Your task to perform on an android device: Add "beats solo 3" to the cart on bestbuy Image 0: 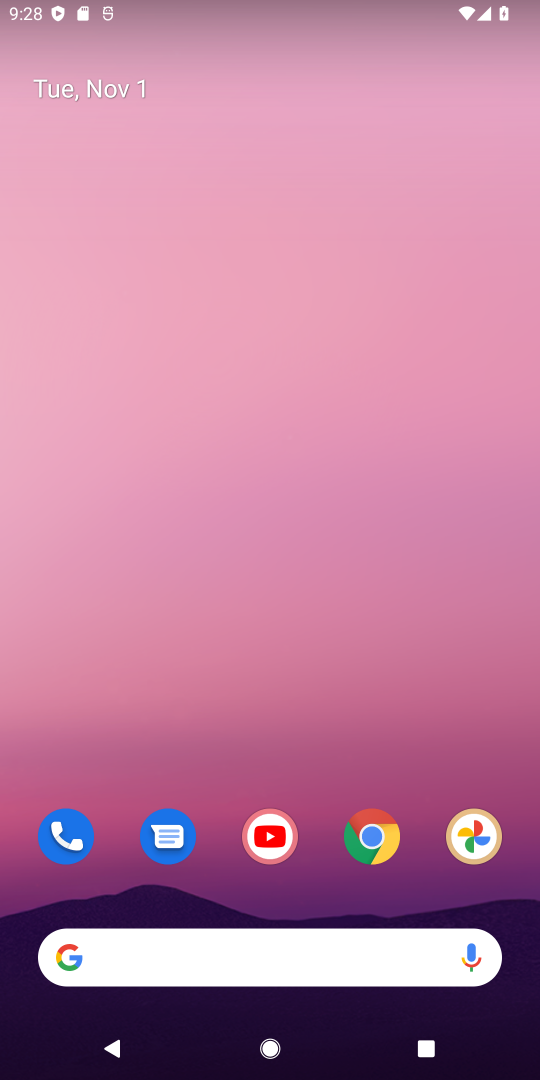
Step 0: click (374, 841)
Your task to perform on an android device: Add "beats solo 3" to the cart on bestbuy Image 1: 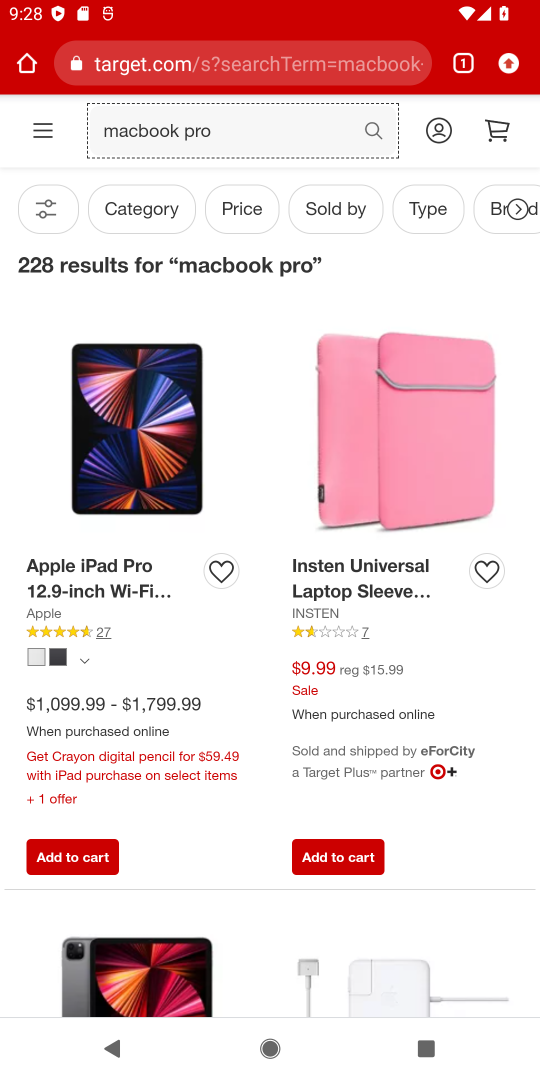
Step 1: click (188, 75)
Your task to perform on an android device: Add "beats solo 3" to the cart on bestbuy Image 2: 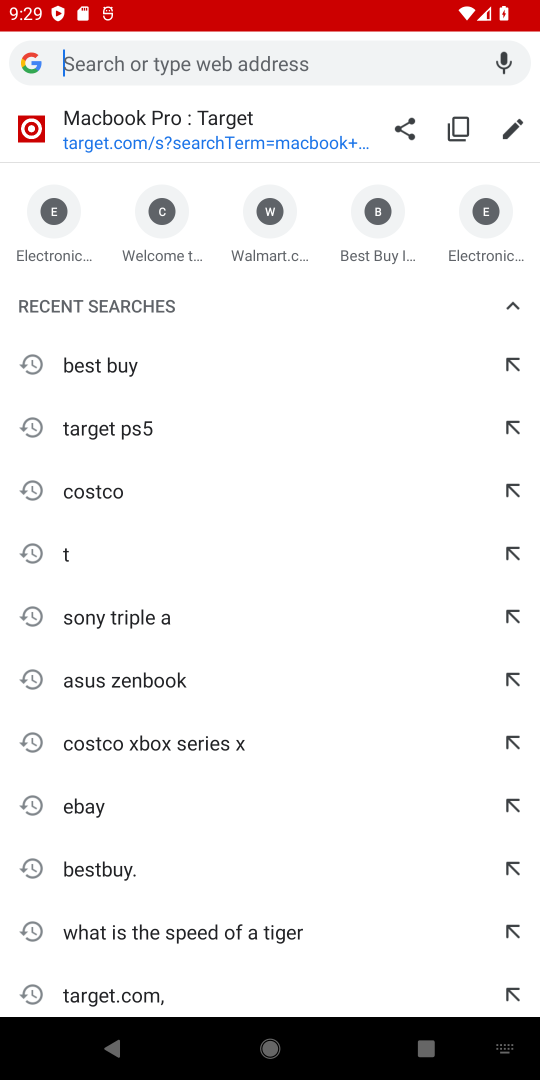
Step 2: type "bestbuy"
Your task to perform on an android device: Add "beats solo 3" to the cart on bestbuy Image 3: 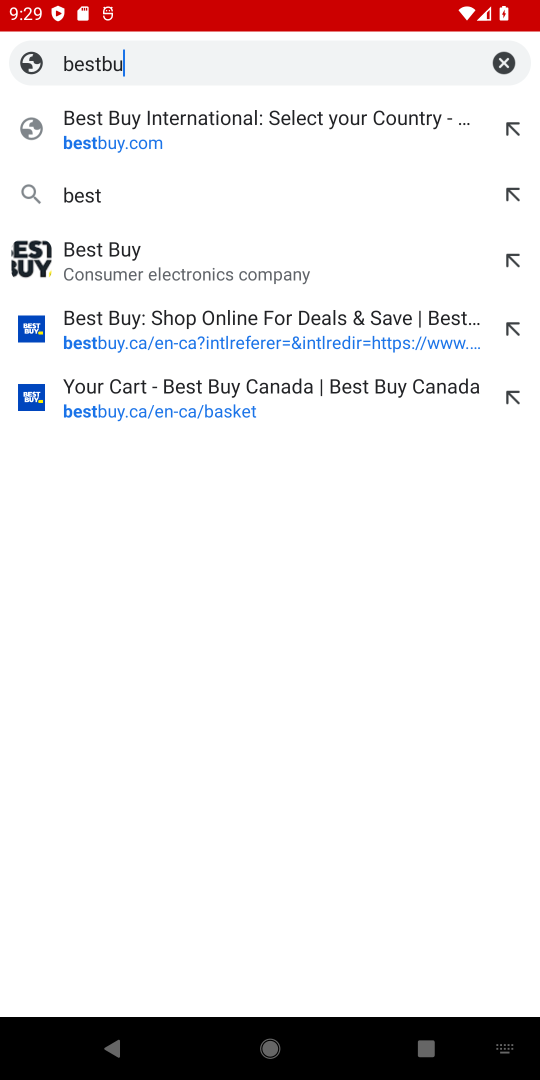
Step 3: type ""
Your task to perform on an android device: Add "beats solo 3" to the cart on bestbuy Image 4: 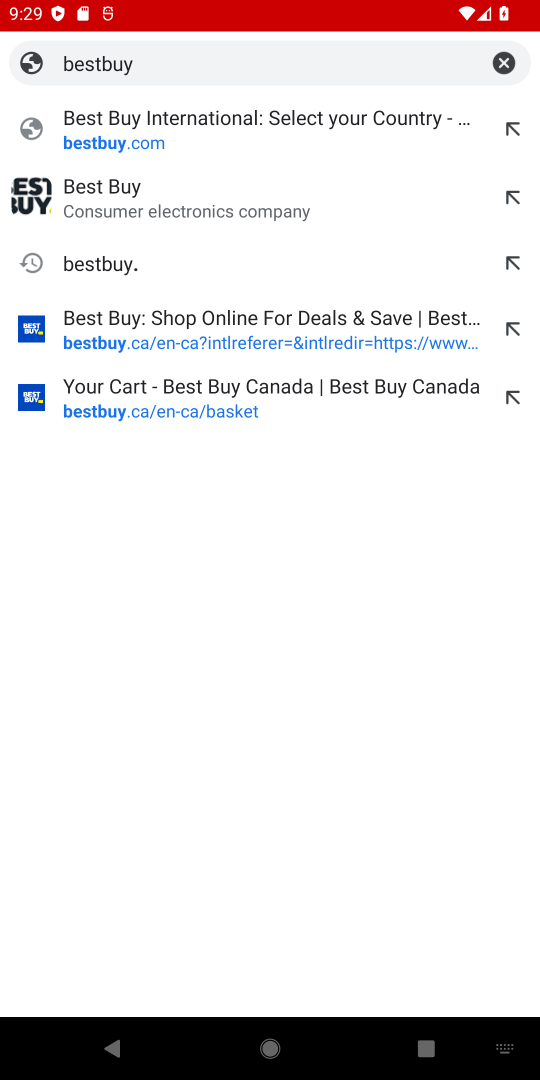
Step 4: click (310, 144)
Your task to perform on an android device: Add "beats solo 3" to the cart on bestbuy Image 5: 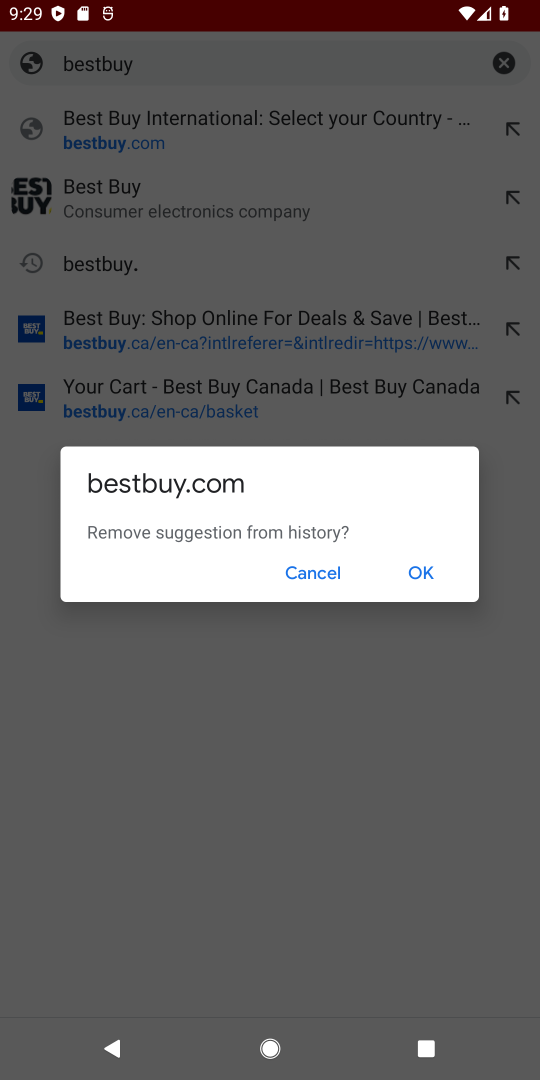
Step 5: click (427, 562)
Your task to perform on an android device: Add "beats solo 3" to the cart on bestbuy Image 6: 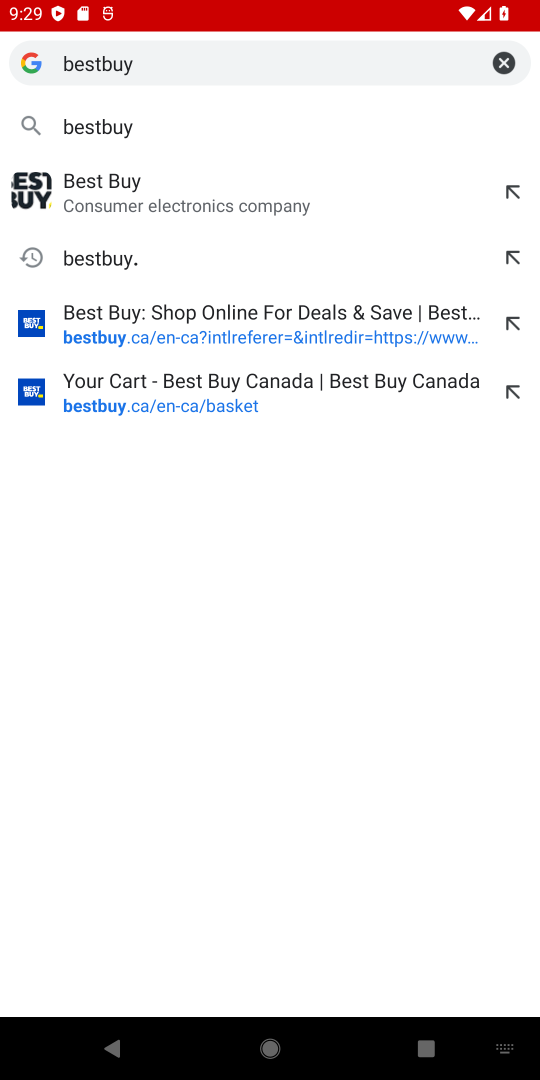
Step 6: click (216, 201)
Your task to perform on an android device: Add "beats solo 3" to the cart on bestbuy Image 7: 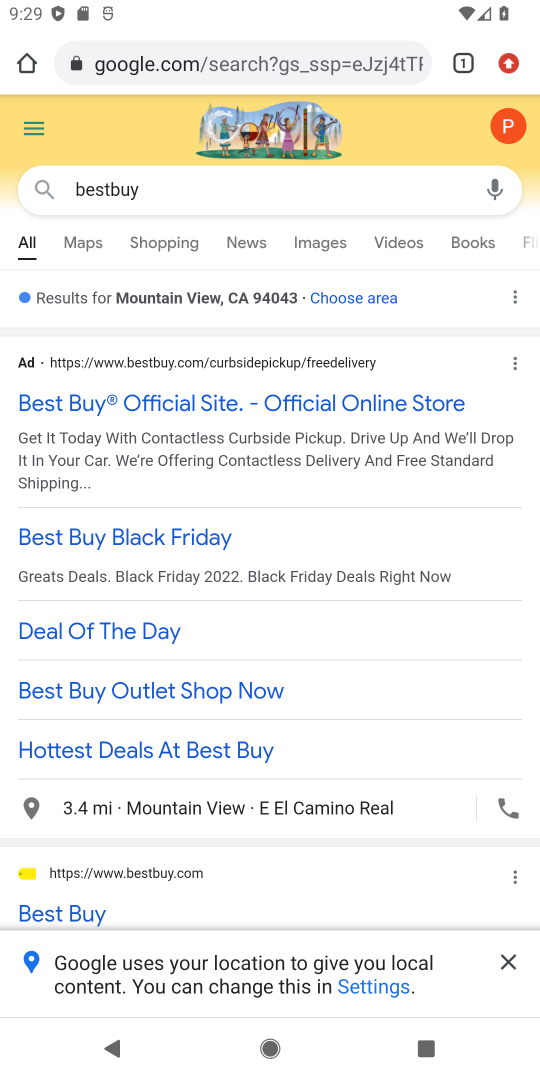
Step 7: click (65, 909)
Your task to perform on an android device: Add "beats solo 3" to the cart on bestbuy Image 8: 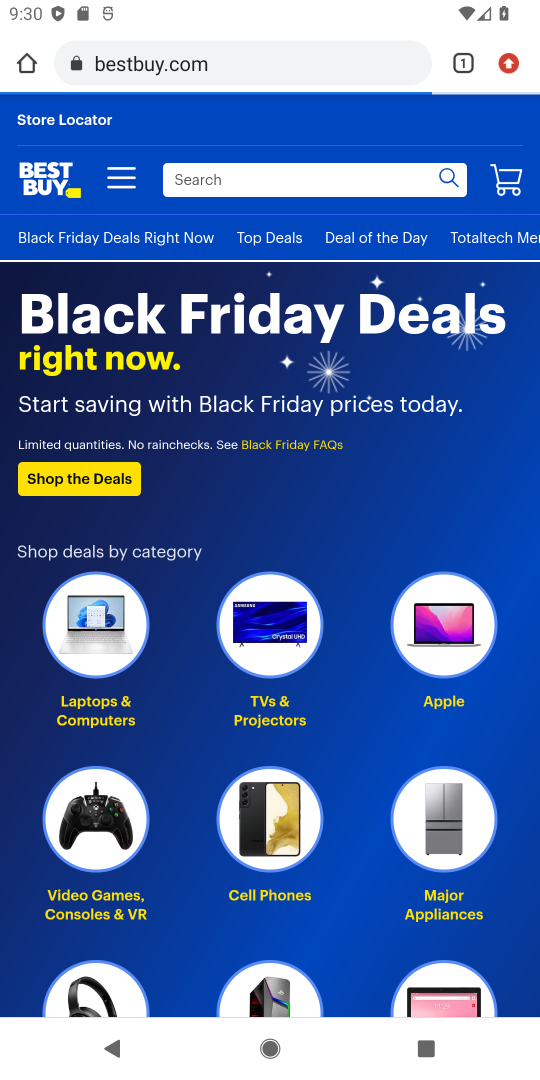
Step 8: click (65, 909)
Your task to perform on an android device: Add "beats solo 3" to the cart on bestbuy Image 9: 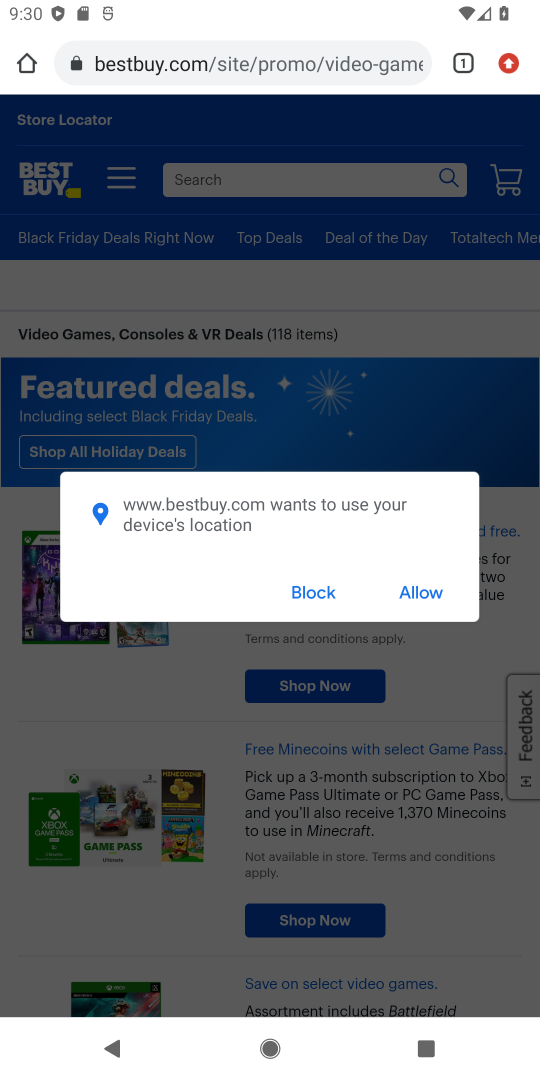
Step 9: click (323, 602)
Your task to perform on an android device: Add "beats solo 3" to the cart on bestbuy Image 10: 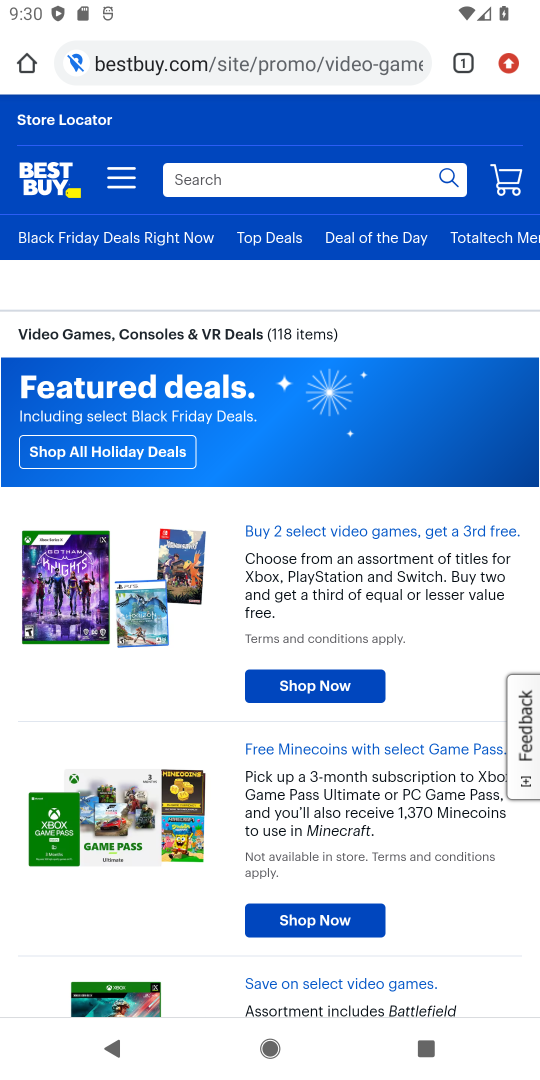
Step 10: click (256, 179)
Your task to perform on an android device: Add "beats solo 3" to the cart on bestbuy Image 11: 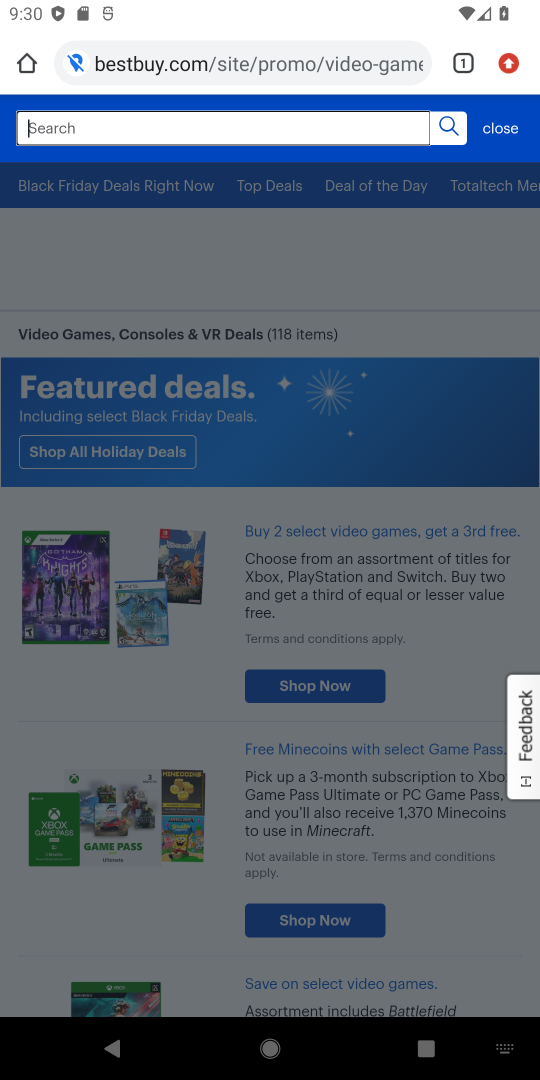
Step 11: click (256, 179)
Your task to perform on an android device: Add "beats solo 3" to the cart on bestbuy Image 12: 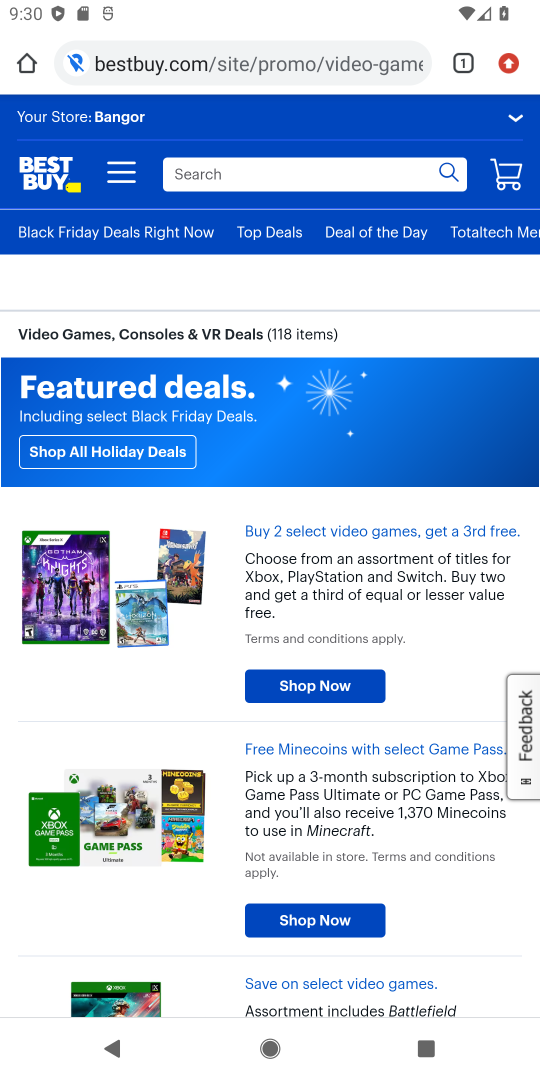
Step 12: click (237, 162)
Your task to perform on an android device: Add "beats solo 3" to the cart on bestbuy Image 13: 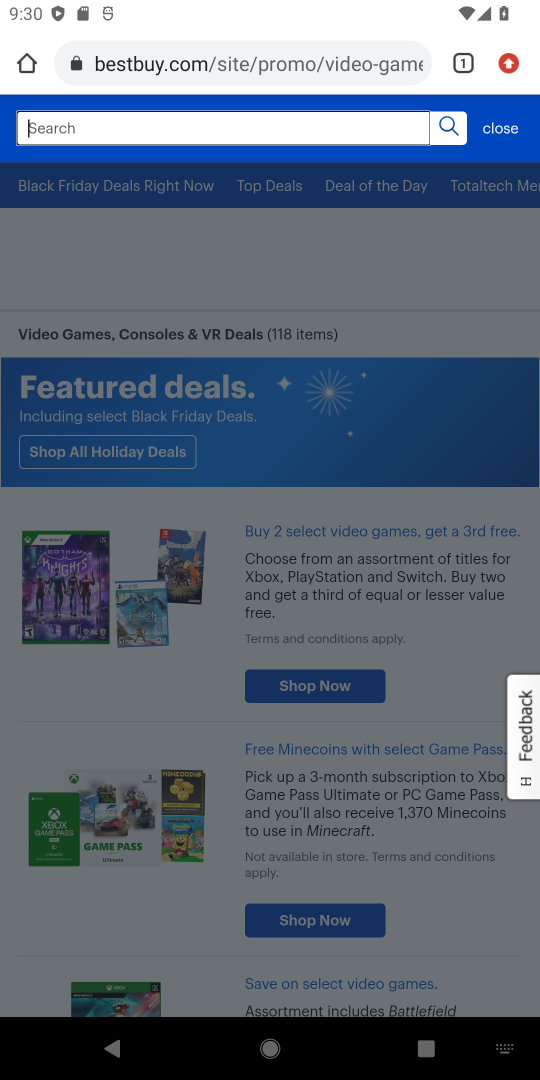
Step 13: type "beats solo 3"
Your task to perform on an android device: Add "beats solo 3" to the cart on bestbuy Image 14: 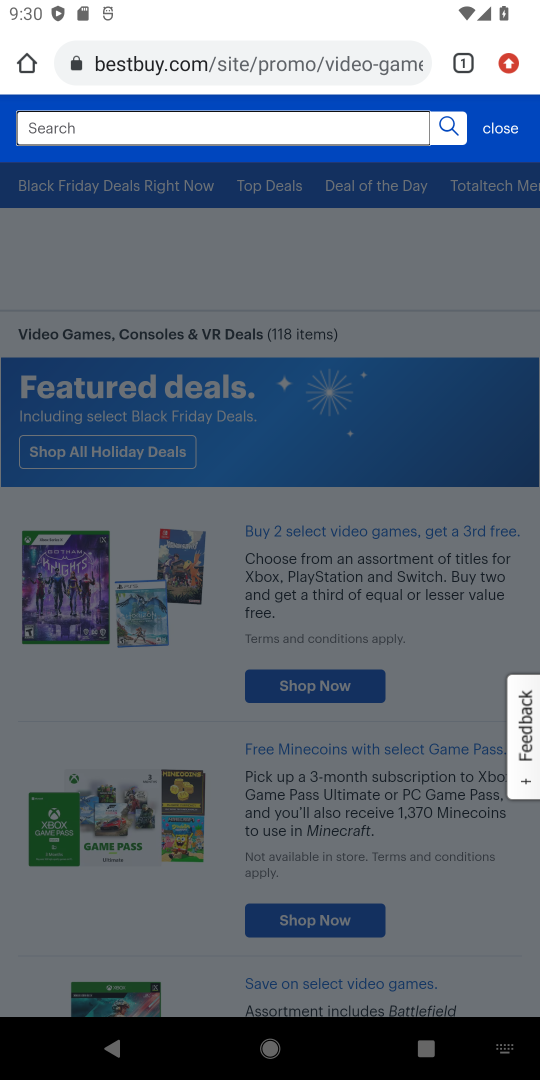
Step 14: type ""
Your task to perform on an android device: Add "beats solo 3" to the cart on bestbuy Image 15: 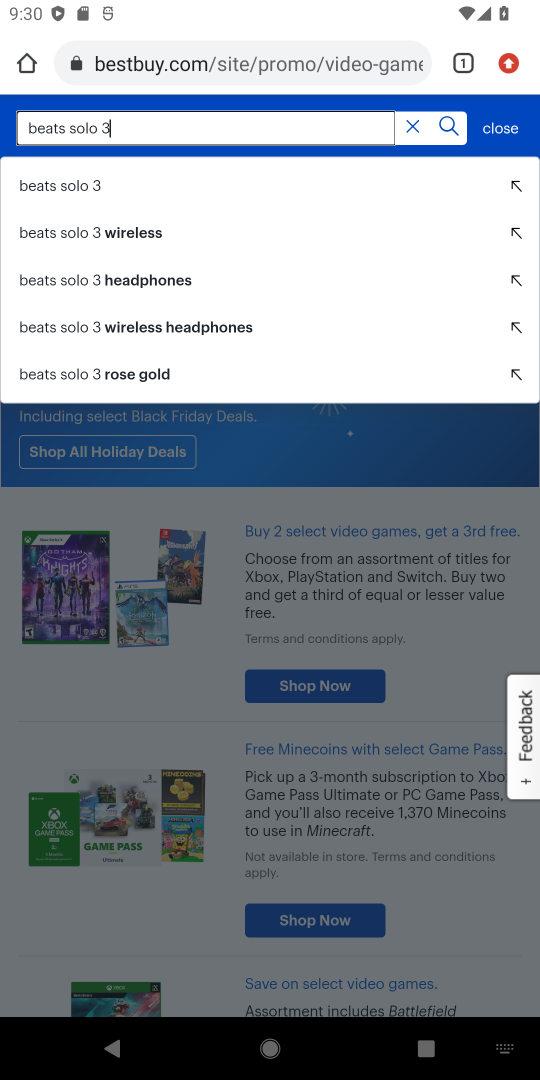
Step 15: click (117, 184)
Your task to perform on an android device: Add "beats solo 3" to the cart on bestbuy Image 16: 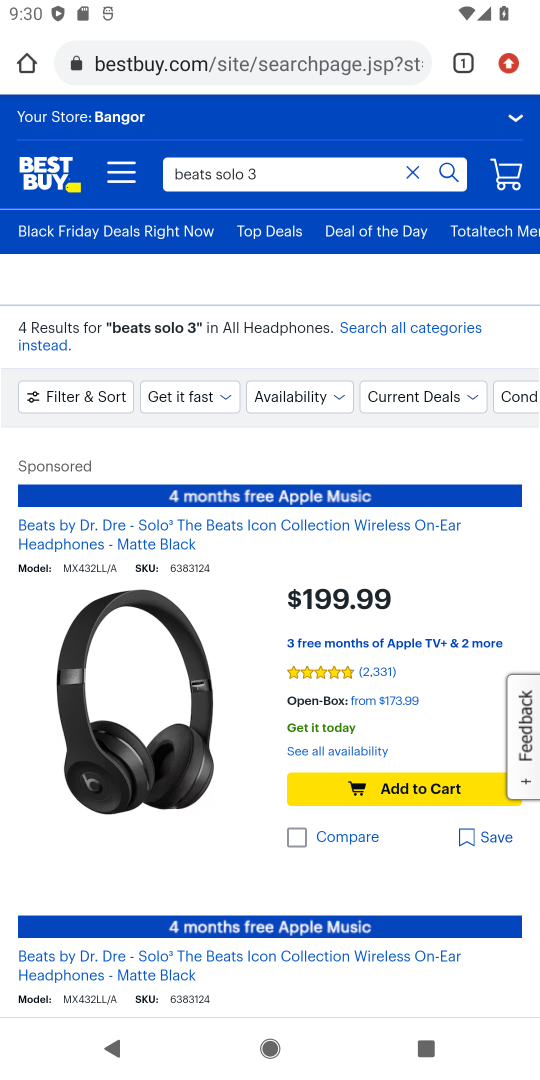
Step 16: drag from (155, 568) to (171, 304)
Your task to perform on an android device: Add "beats solo 3" to the cart on bestbuy Image 17: 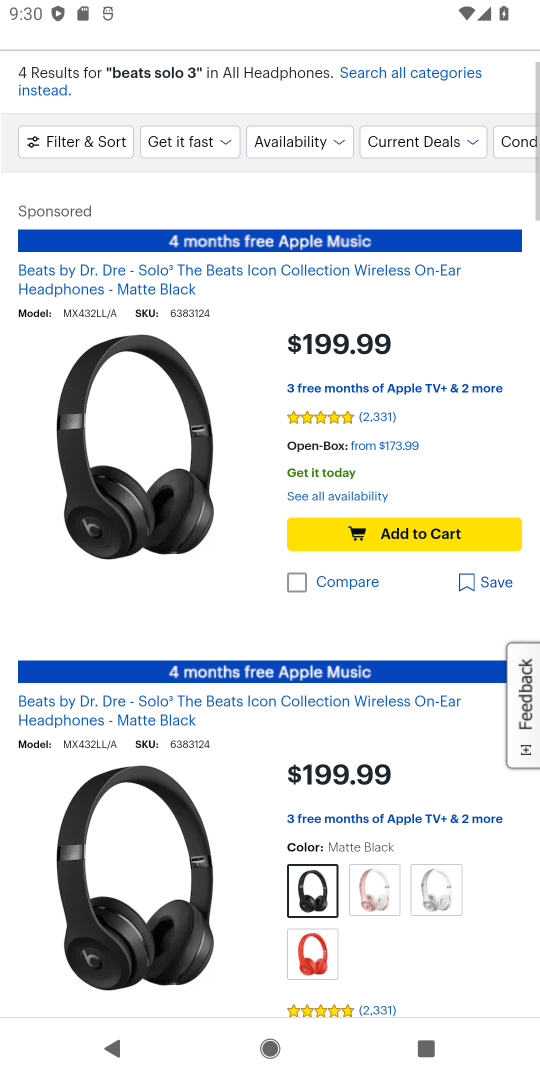
Step 17: drag from (329, 847) to (343, 371)
Your task to perform on an android device: Add "beats solo 3" to the cart on bestbuy Image 18: 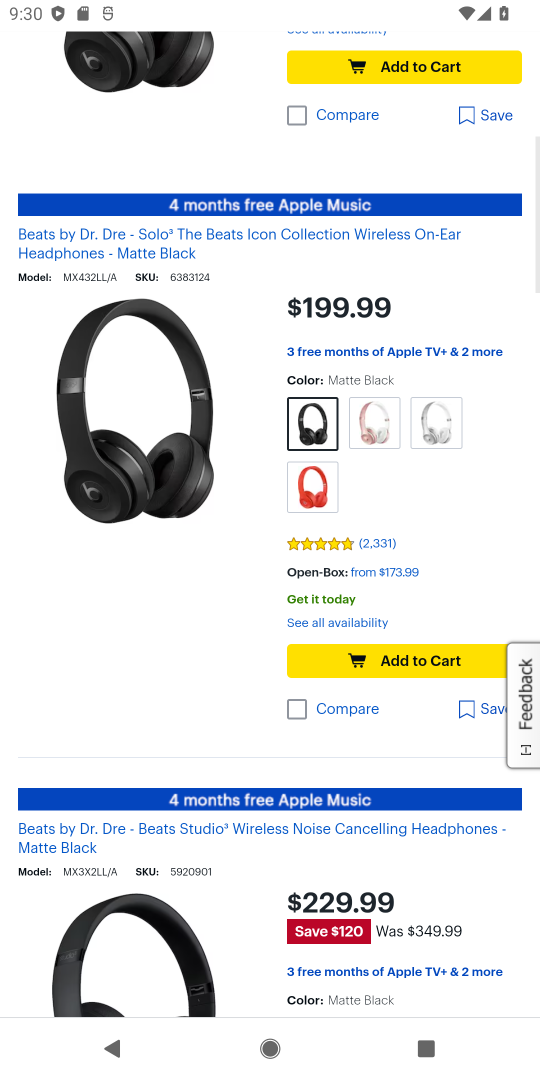
Step 18: drag from (355, 712) to (357, 332)
Your task to perform on an android device: Add "beats solo 3" to the cart on bestbuy Image 19: 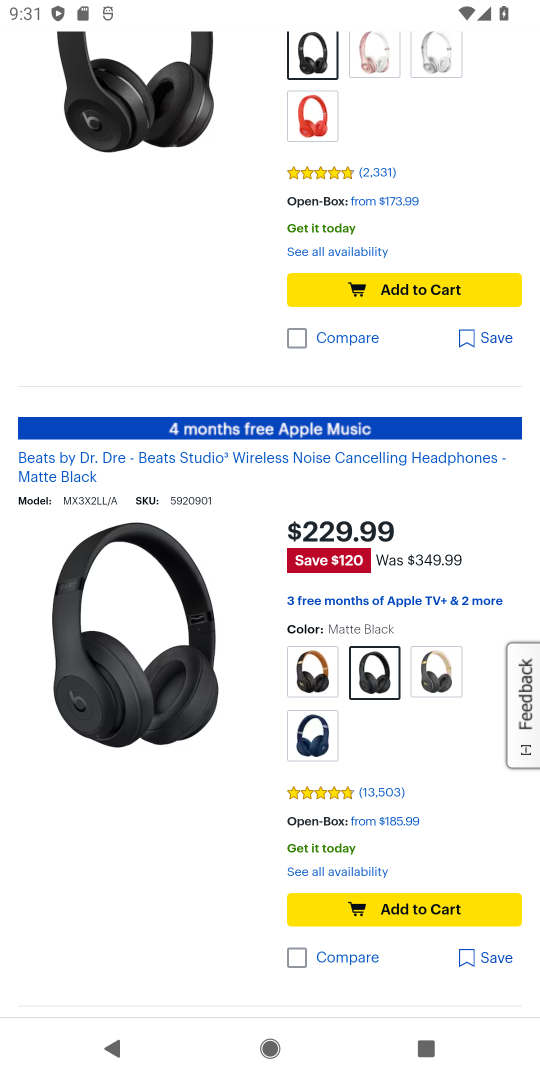
Step 19: drag from (328, 625) to (322, 831)
Your task to perform on an android device: Add "beats solo 3" to the cart on bestbuy Image 20: 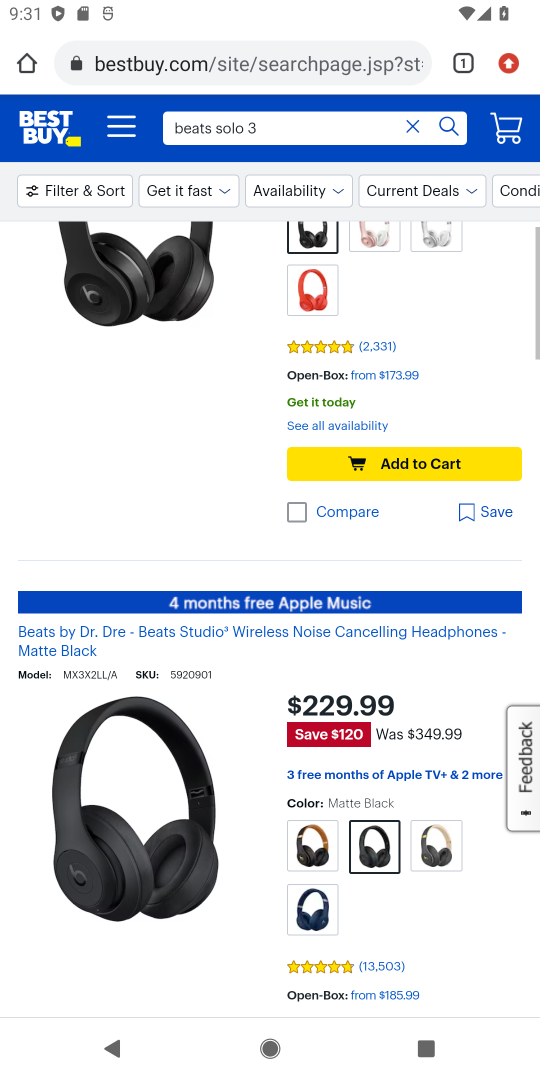
Step 20: drag from (260, 609) to (259, 905)
Your task to perform on an android device: Add "beats solo 3" to the cart on bestbuy Image 21: 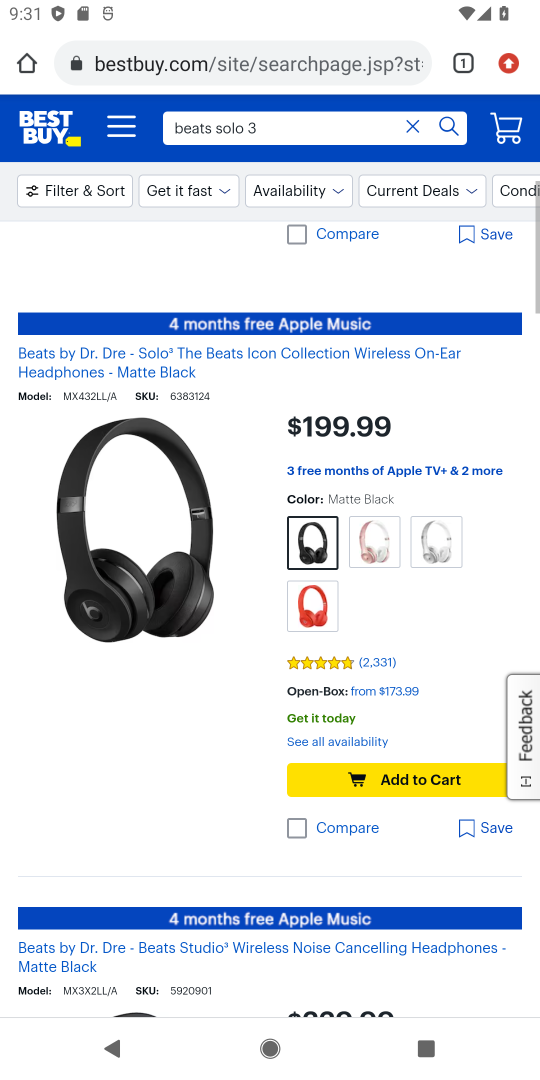
Step 21: drag from (240, 667) to (226, 867)
Your task to perform on an android device: Add "beats solo 3" to the cart on bestbuy Image 22: 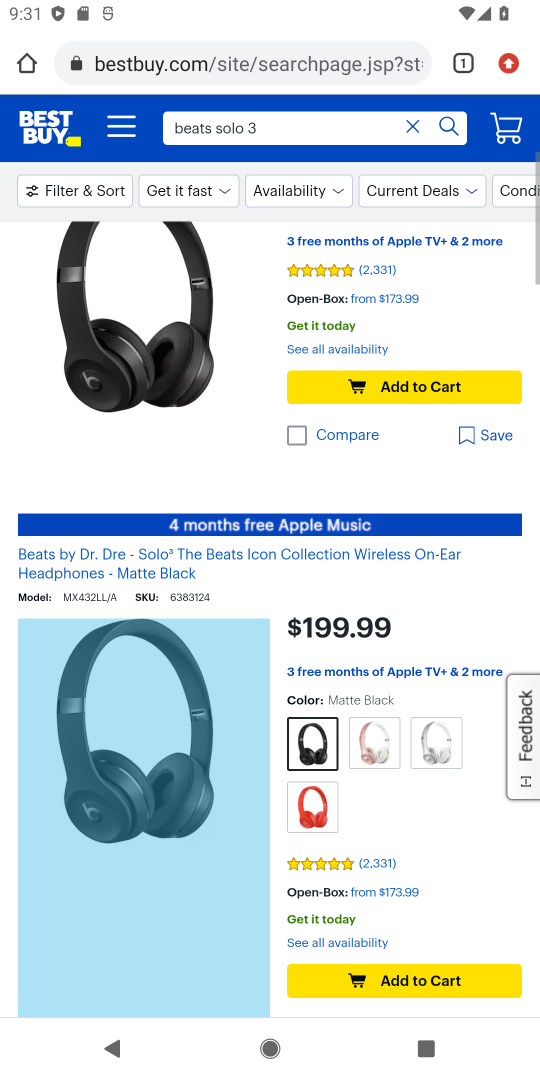
Step 22: drag from (264, 446) to (268, 717)
Your task to perform on an android device: Add "beats solo 3" to the cart on bestbuy Image 23: 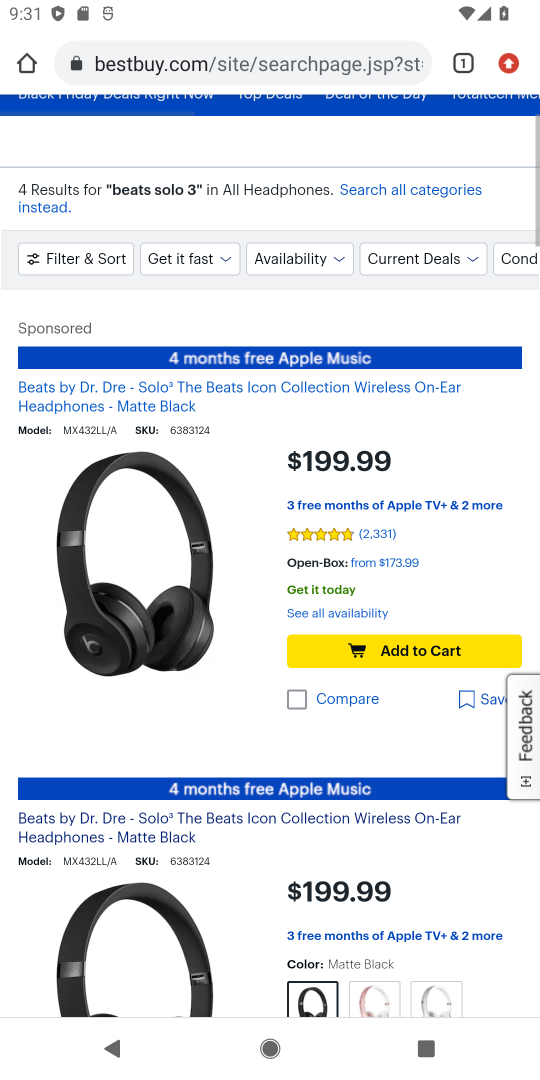
Step 23: drag from (310, 446) to (277, 740)
Your task to perform on an android device: Add "beats solo 3" to the cart on bestbuy Image 24: 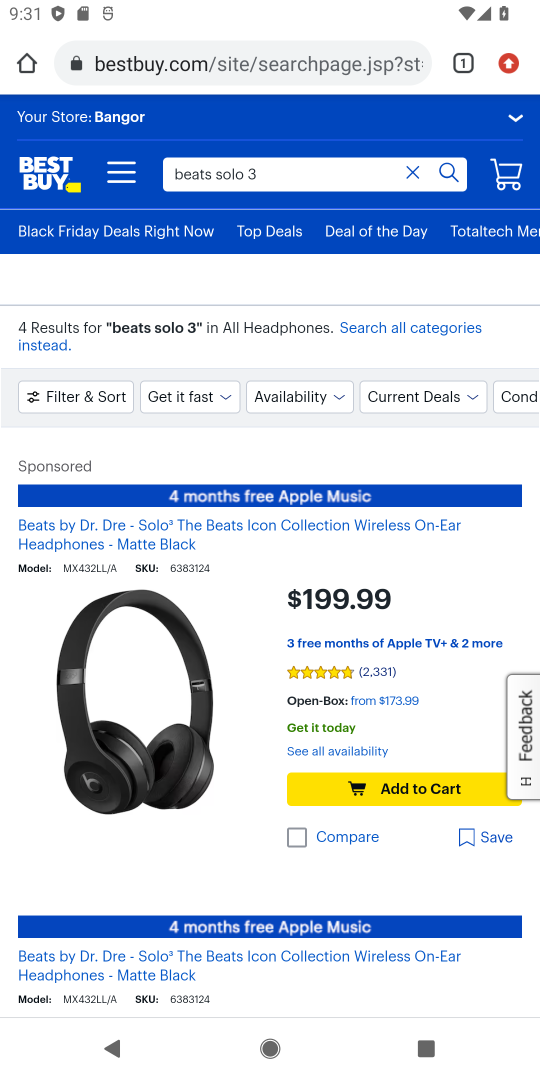
Step 24: click (311, 641)
Your task to perform on an android device: Add "beats solo 3" to the cart on bestbuy Image 25: 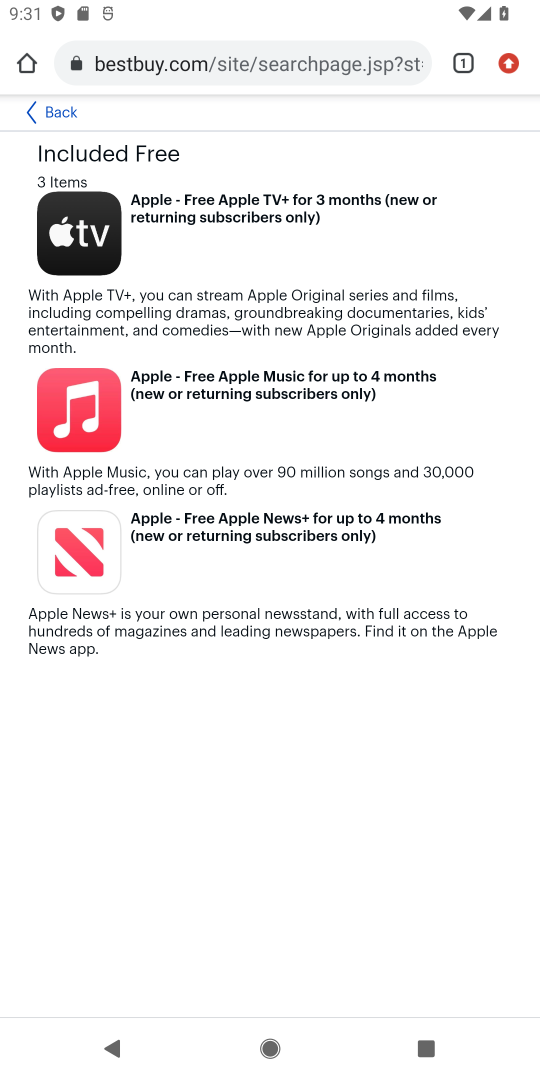
Step 25: press back button
Your task to perform on an android device: Add "beats solo 3" to the cart on bestbuy Image 26: 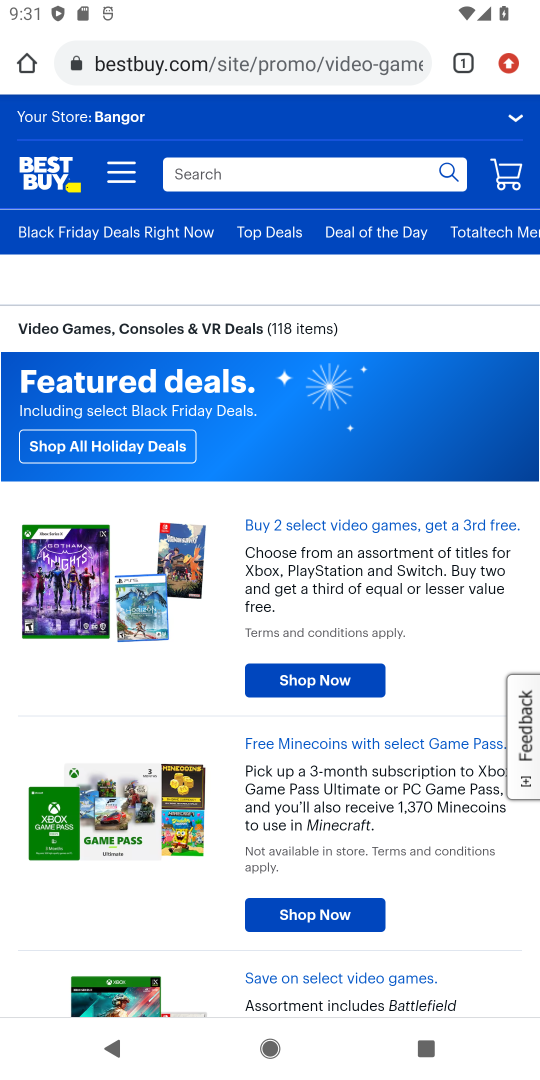
Step 26: drag from (322, 475) to (346, 315)
Your task to perform on an android device: Add "beats solo 3" to the cart on bestbuy Image 27: 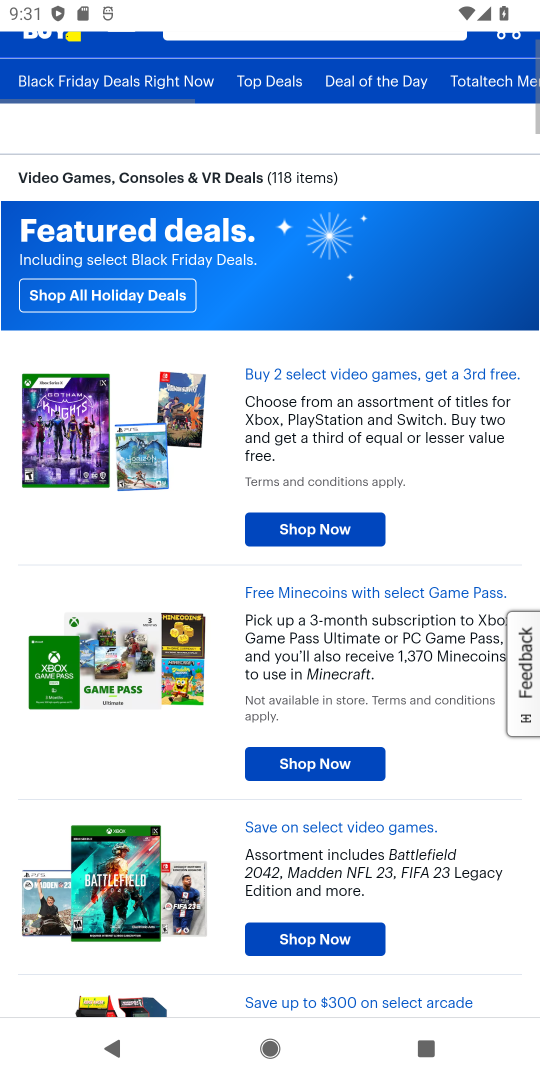
Step 27: drag from (300, 661) to (316, 460)
Your task to perform on an android device: Add "beats solo 3" to the cart on bestbuy Image 28: 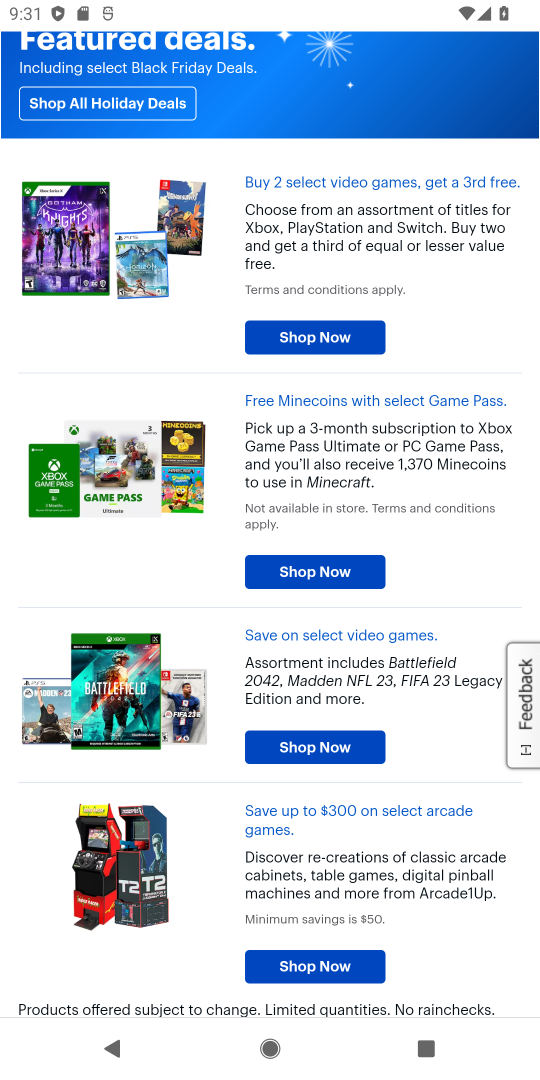
Step 28: drag from (355, 135) to (267, 728)
Your task to perform on an android device: Add "beats solo 3" to the cart on bestbuy Image 29: 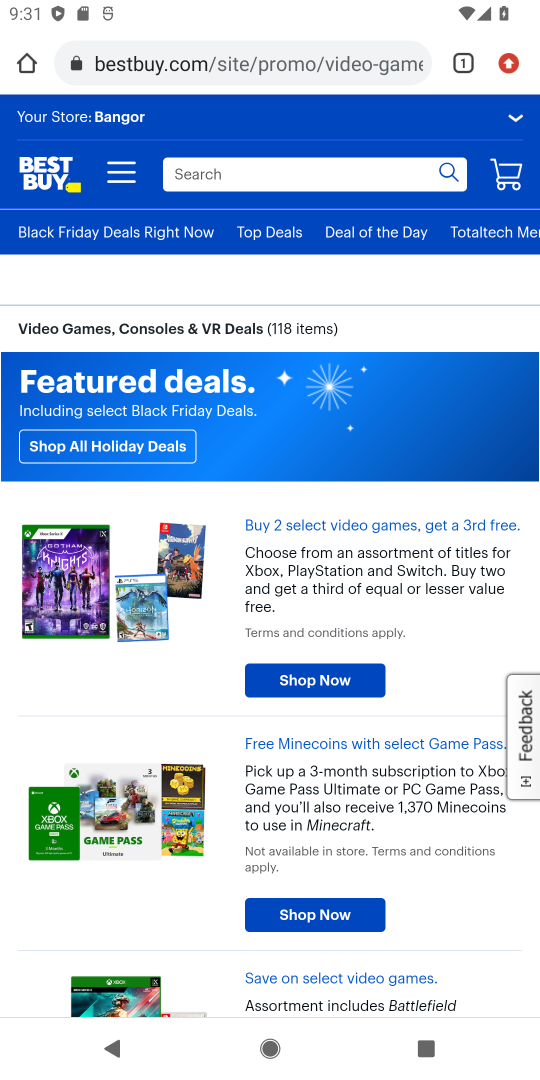
Step 29: click (318, 174)
Your task to perform on an android device: Add "beats solo 3" to the cart on bestbuy Image 30: 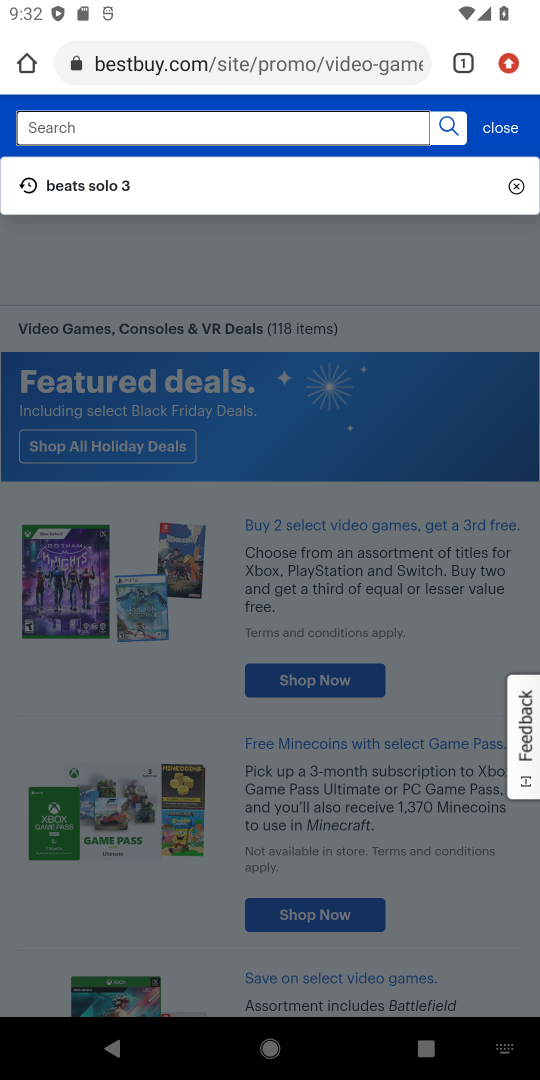
Step 30: click (153, 181)
Your task to perform on an android device: Add "beats solo 3" to the cart on bestbuy Image 31: 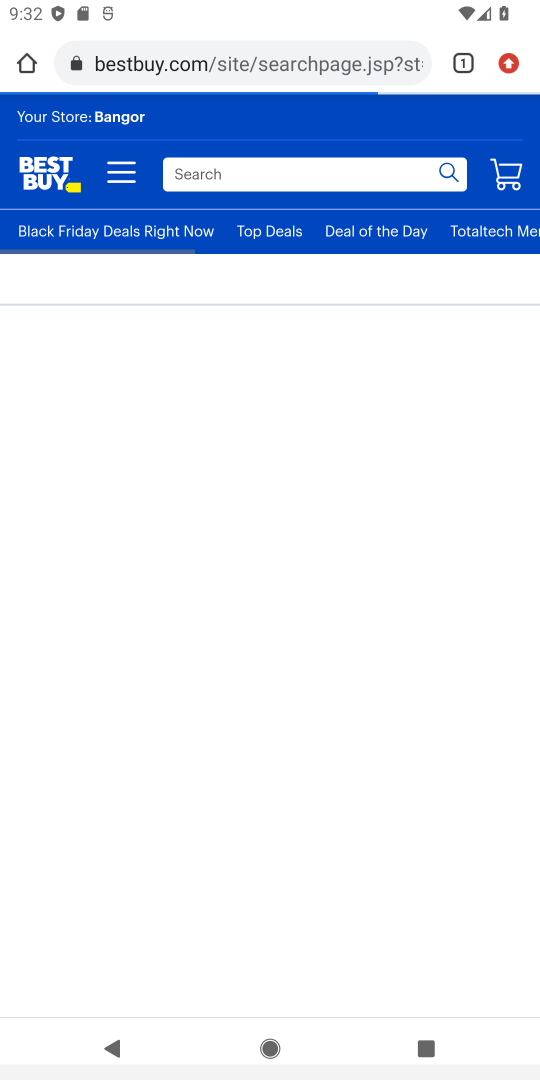
Step 31: click (453, 128)
Your task to perform on an android device: Add "beats solo 3" to the cart on bestbuy Image 32: 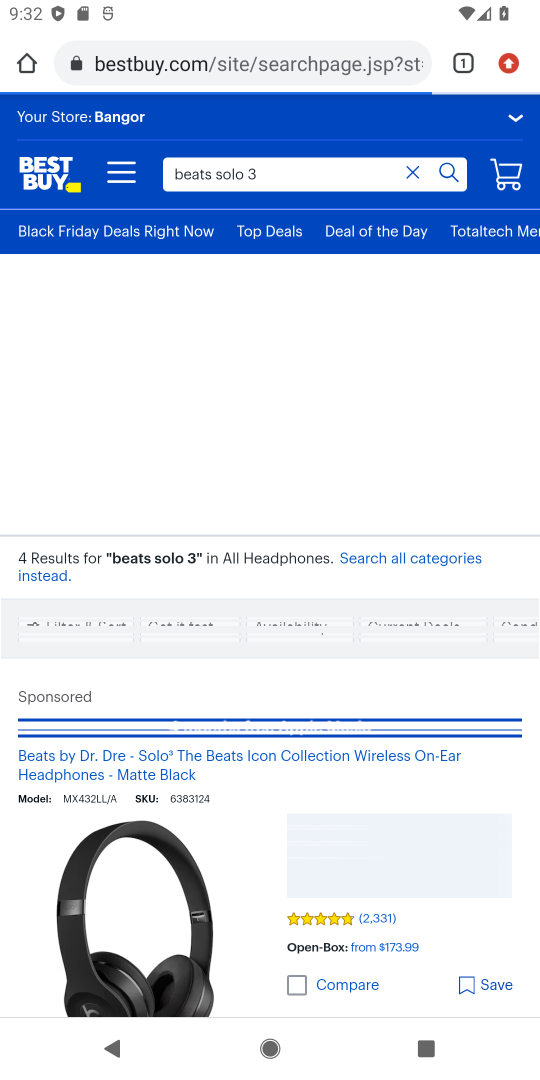
Step 32: click (251, 752)
Your task to perform on an android device: Add "beats solo 3" to the cart on bestbuy Image 33: 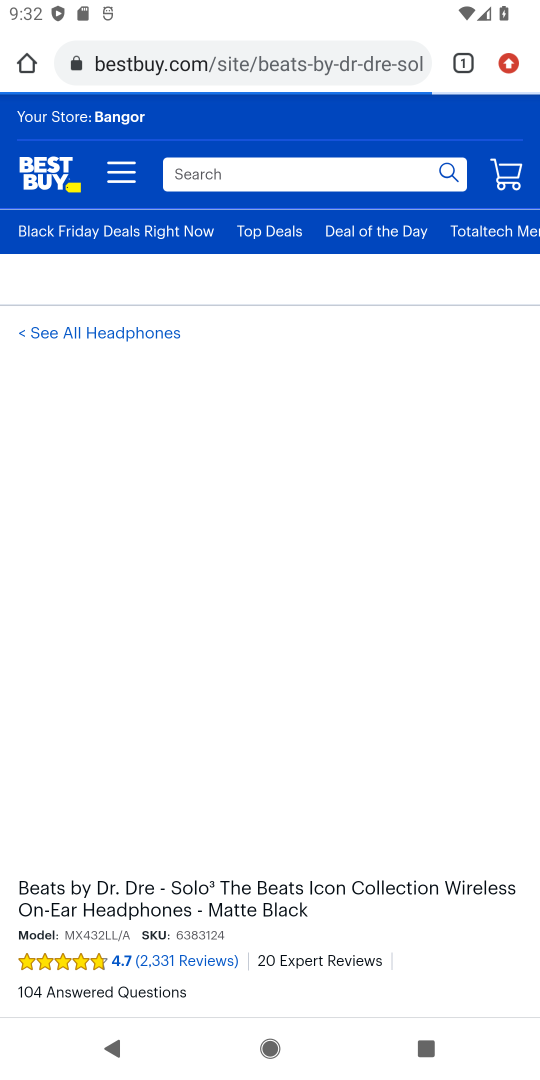
Step 33: drag from (436, 885) to (432, 473)
Your task to perform on an android device: Add "beats solo 3" to the cart on bestbuy Image 34: 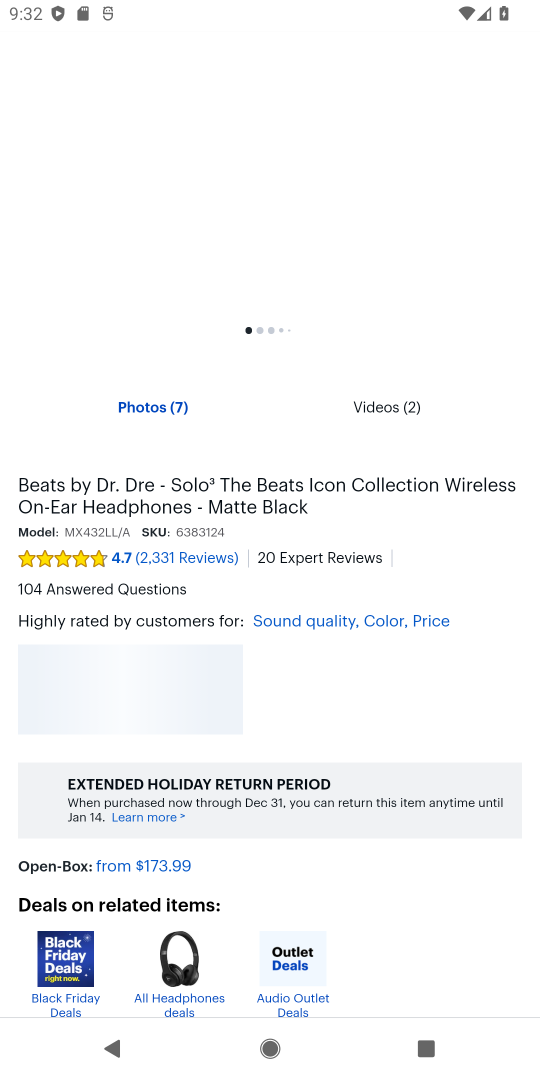
Step 34: drag from (416, 799) to (419, 463)
Your task to perform on an android device: Add "beats solo 3" to the cart on bestbuy Image 35: 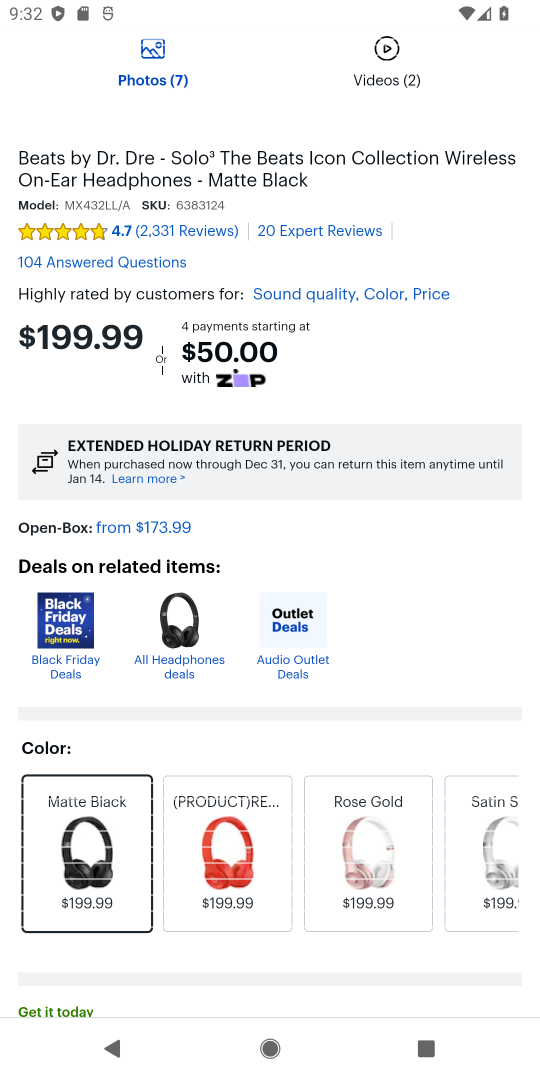
Step 35: drag from (358, 857) to (374, 435)
Your task to perform on an android device: Add "beats solo 3" to the cart on bestbuy Image 36: 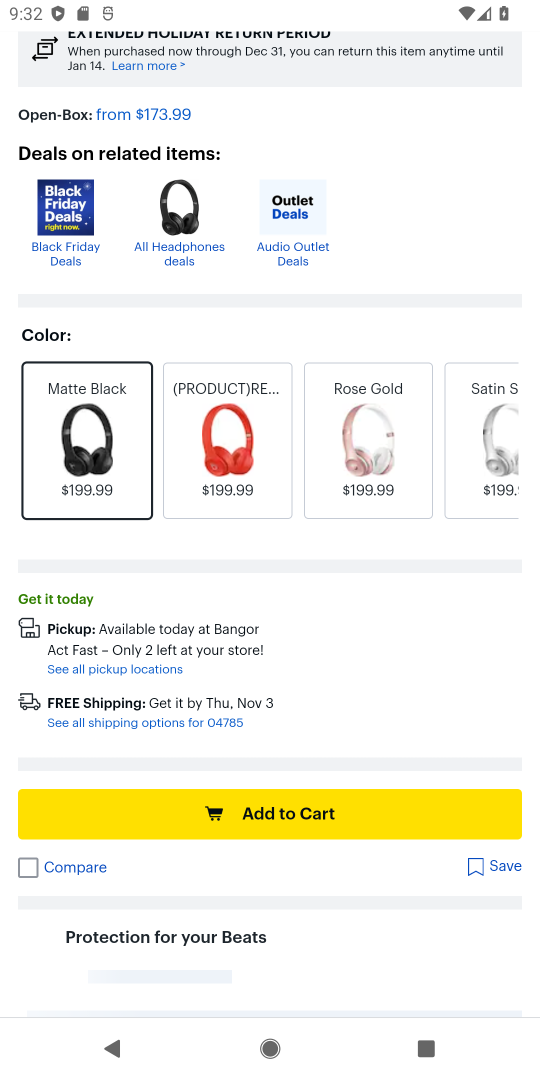
Step 36: click (340, 799)
Your task to perform on an android device: Add "beats solo 3" to the cart on bestbuy Image 37: 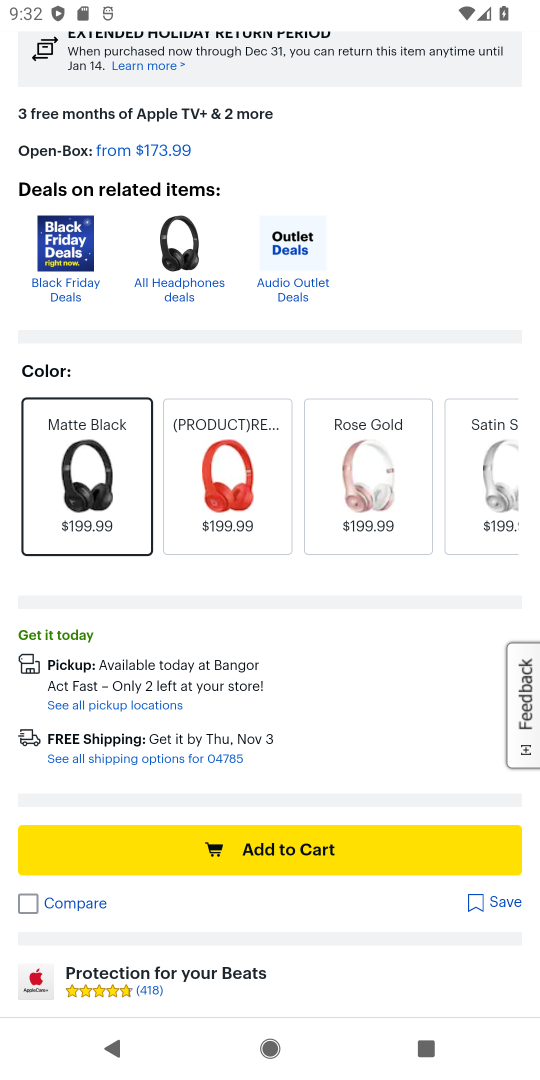
Step 37: click (332, 838)
Your task to perform on an android device: Add "beats solo 3" to the cart on bestbuy Image 38: 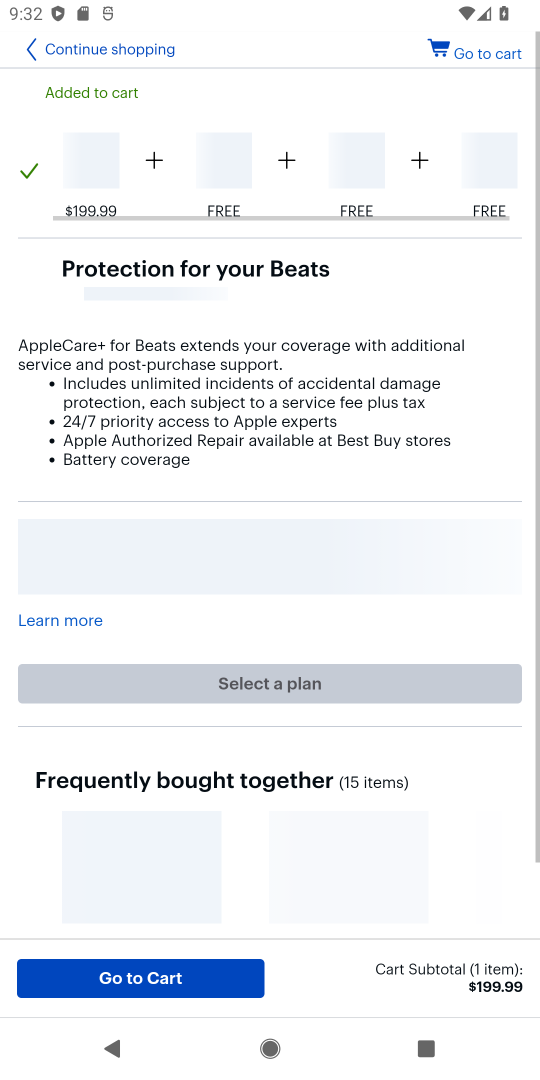
Step 38: click (232, 971)
Your task to perform on an android device: Add "beats solo 3" to the cart on bestbuy Image 39: 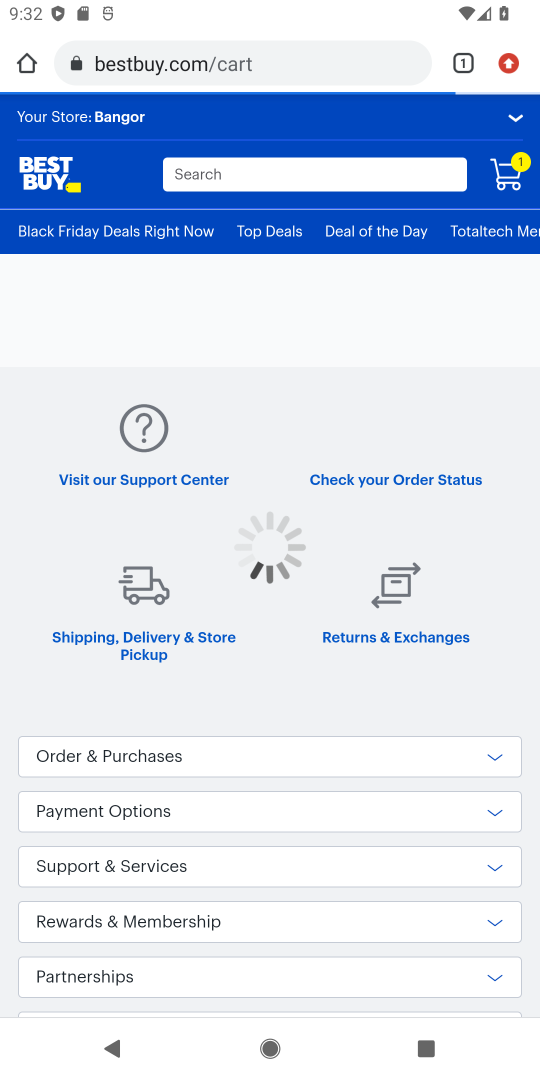
Step 39: click (510, 167)
Your task to perform on an android device: Add "beats solo 3" to the cart on bestbuy Image 40: 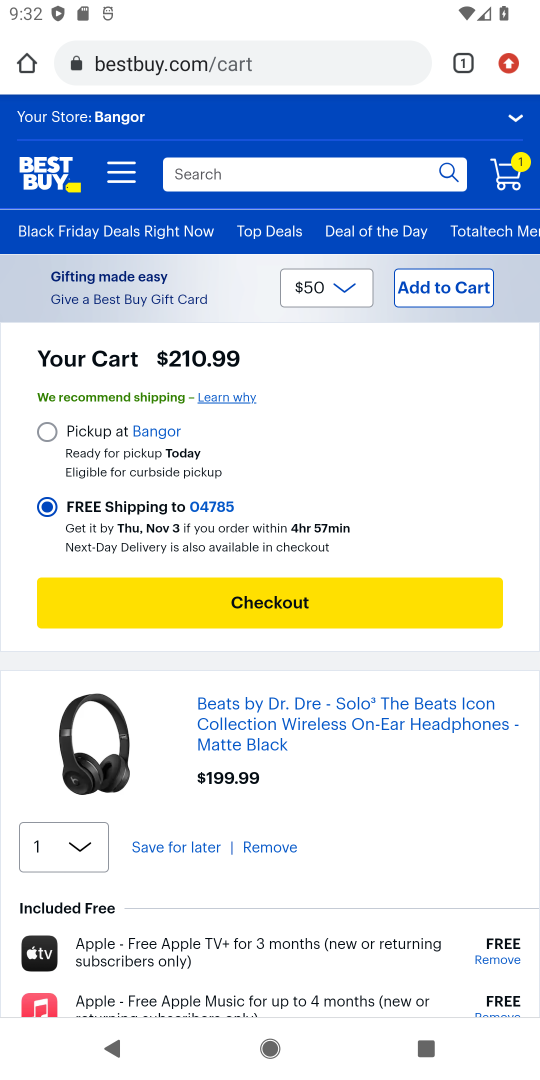
Step 40: click (412, 588)
Your task to perform on an android device: Add "beats solo 3" to the cart on bestbuy Image 41: 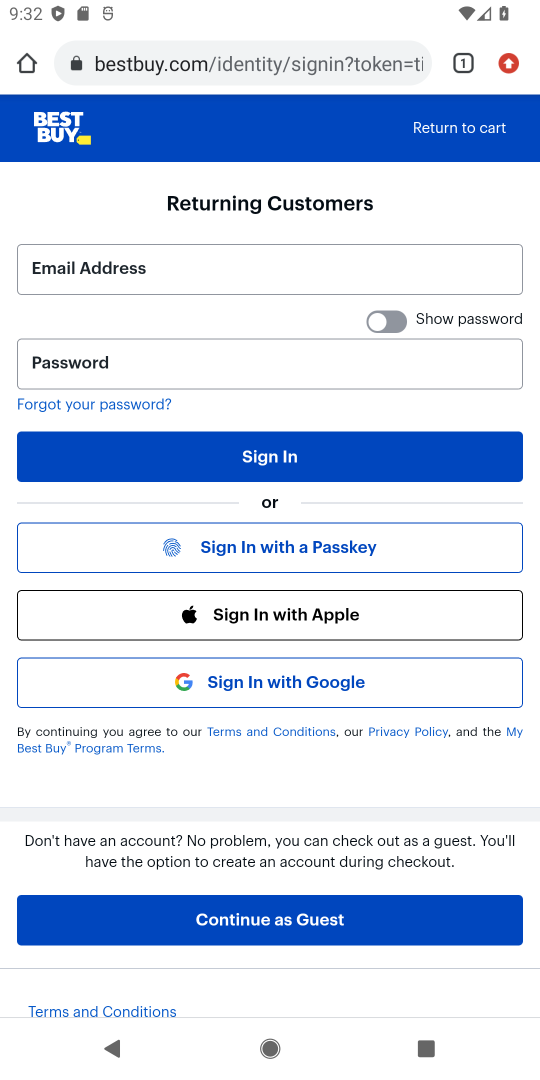
Step 41: task complete